Your task to perform on an android device: turn on bluetooth scan Image 0: 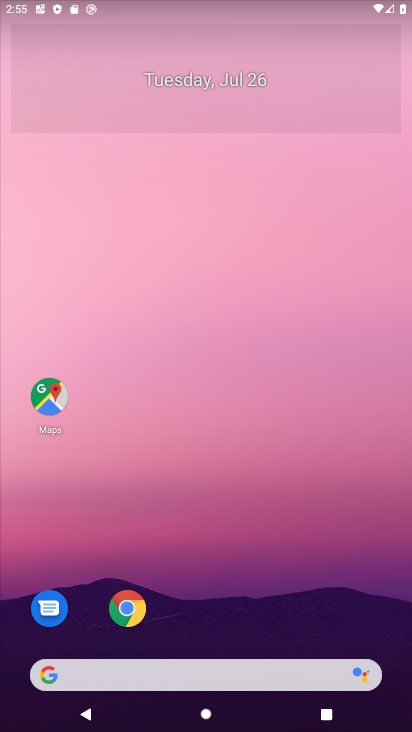
Step 0: drag from (254, 532) to (266, 271)
Your task to perform on an android device: turn on bluetooth scan Image 1: 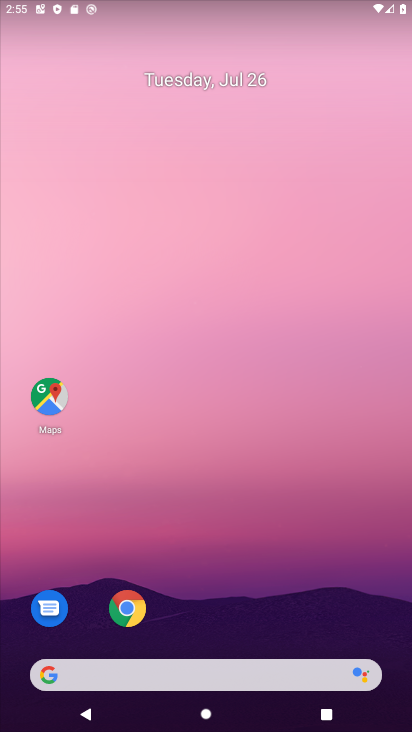
Step 1: drag from (273, 567) to (298, 269)
Your task to perform on an android device: turn on bluetooth scan Image 2: 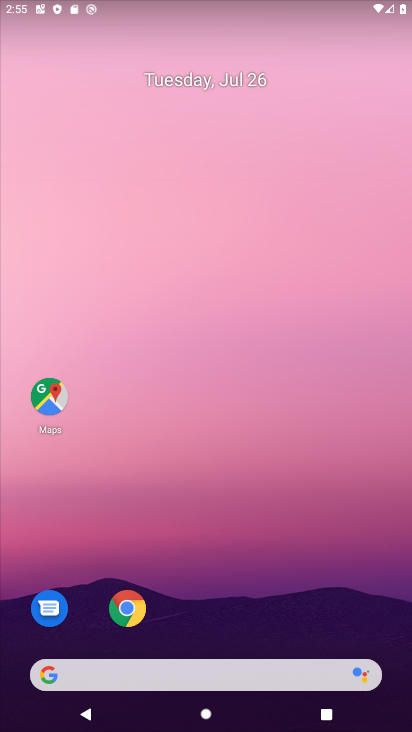
Step 2: drag from (291, 536) to (324, 96)
Your task to perform on an android device: turn on bluetooth scan Image 3: 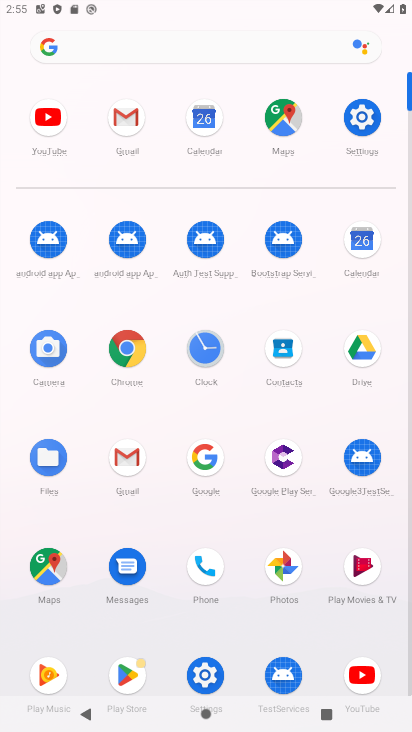
Step 3: click (364, 131)
Your task to perform on an android device: turn on bluetooth scan Image 4: 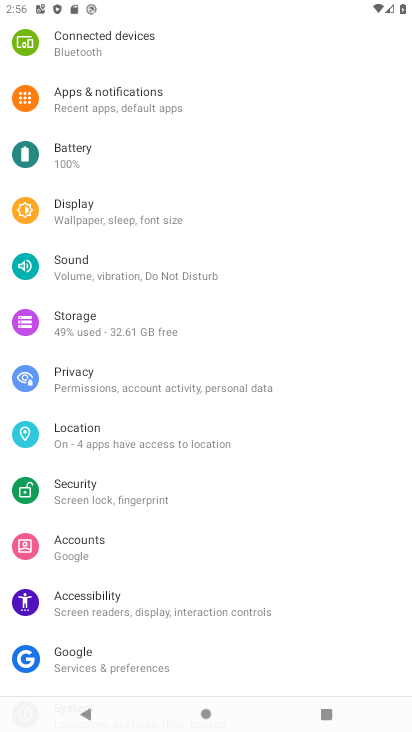
Step 4: click (85, 40)
Your task to perform on an android device: turn on bluetooth scan Image 5: 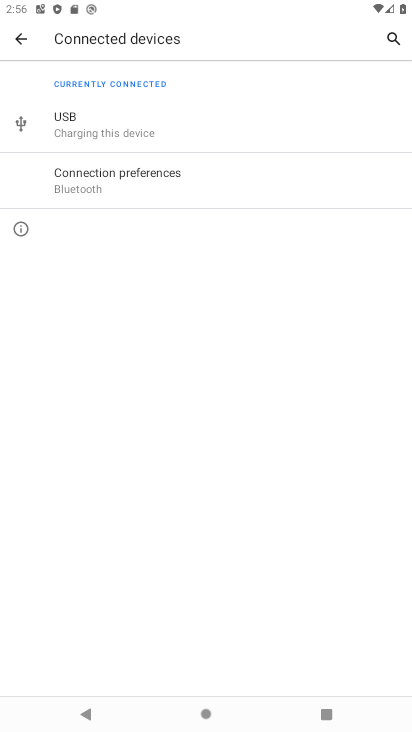
Step 5: click (125, 185)
Your task to perform on an android device: turn on bluetooth scan Image 6: 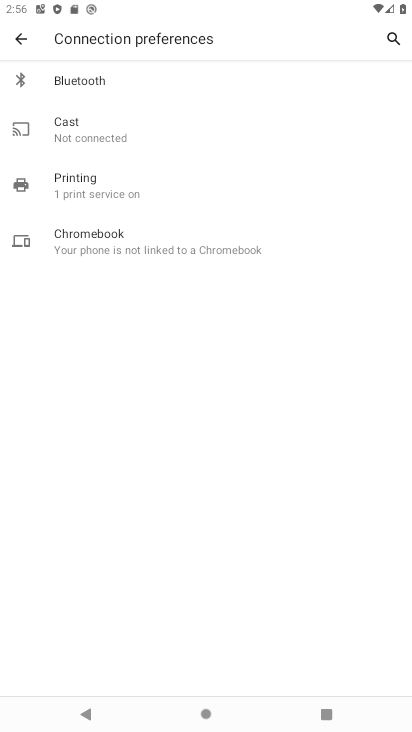
Step 6: click (224, 89)
Your task to perform on an android device: turn on bluetooth scan Image 7: 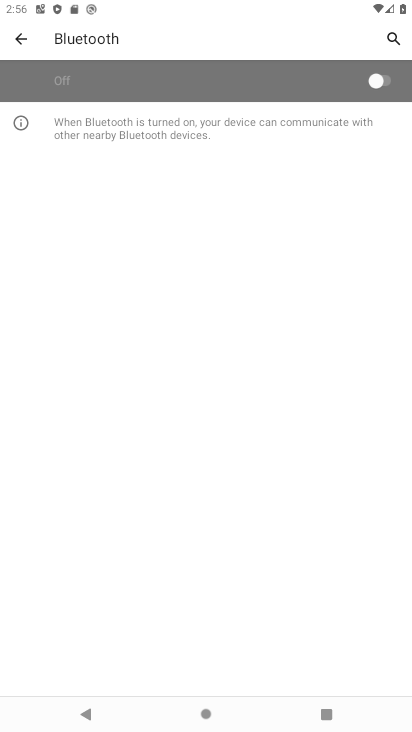
Step 7: click (380, 84)
Your task to perform on an android device: turn on bluetooth scan Image 8: 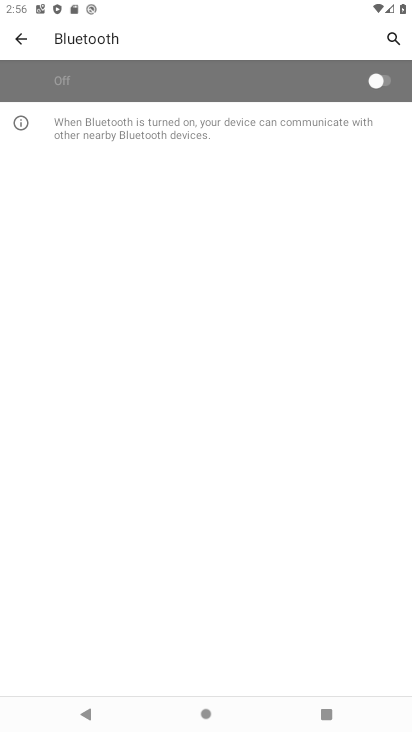
Step 8: click (380, 84)
Your task to perform on an android device: turn on bluetooth scan Image 9: 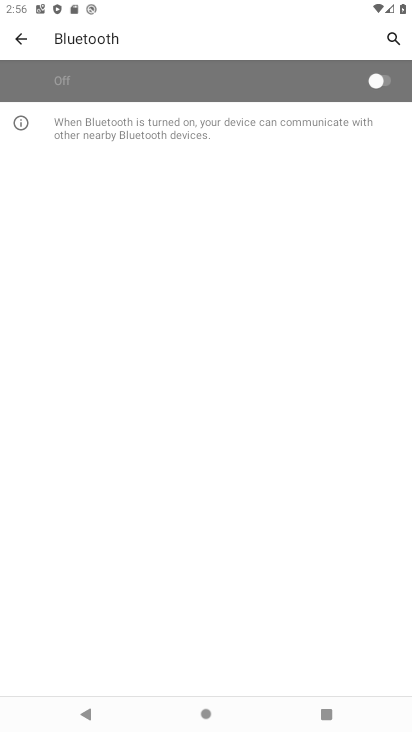
Step 9: click (380, 84)
Your task to perform on an android device: turn on bluetooth scan Image 10: 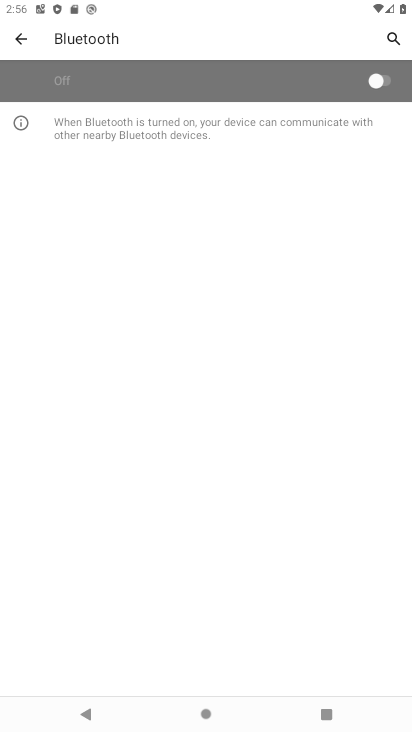
Step 10: click (372, 73)
Your task to perform on an android device: turn on bluetooth scan Image 11: 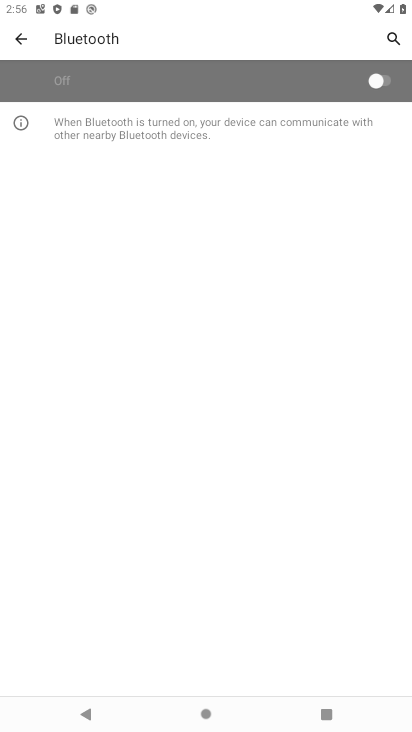
Step 11: task complete